Your task to perform on an android device: find snoozed emails in the gmail app Image 0: 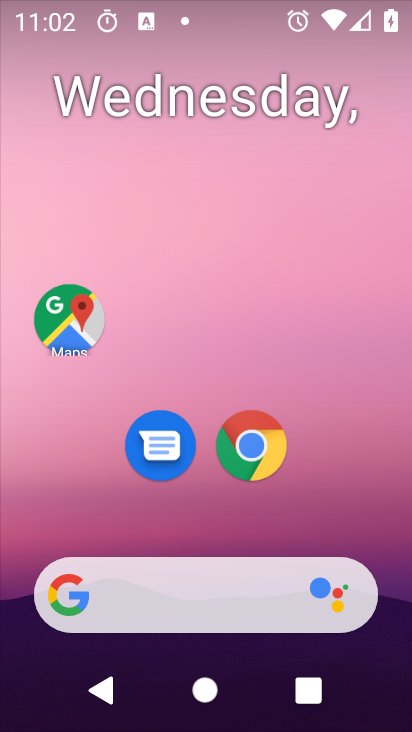
Step 0: drag from (344, 489) to (335, 5)
Your task to perform on an android device: find snoozed emails in the gmail app Image 1: 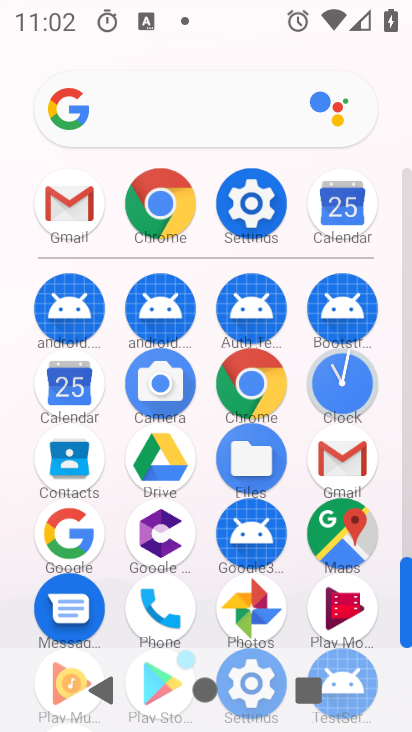
Step 1: click (344, 470)
Your task to perform on an android device: find snoozed emails in the gmail app Image 2: 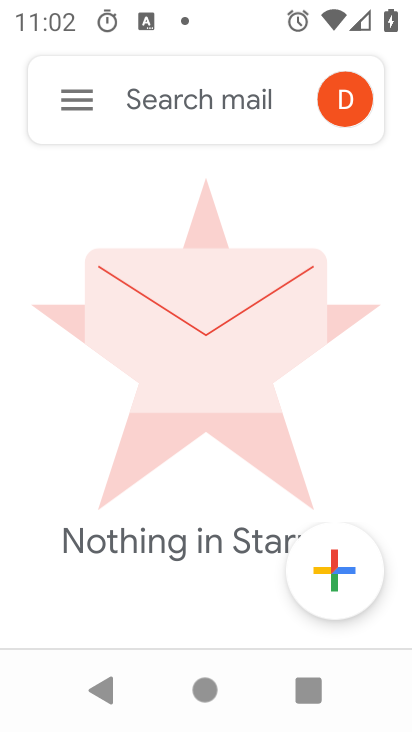
Step 2: click (60, 96)
Your task to perform on an android device: find snoozed emails in the gmail app Image 3: 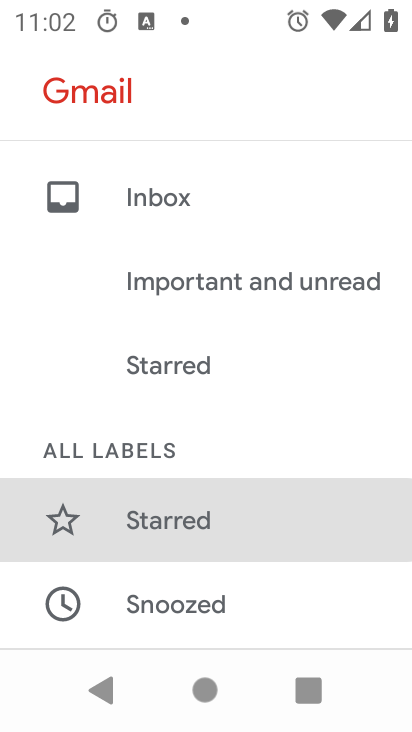
Step 3: drag from (240, 552) to (288, 228)
Your task to perform on an android device: find snoozed emails in the gmail app Image 4: 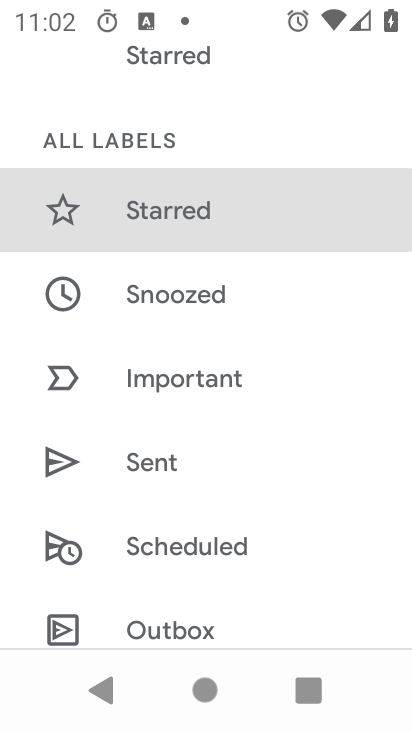
Step 4: click (158, 319)
Your task to perform on an android device: find snoozed emails in the gmail app Image 5: 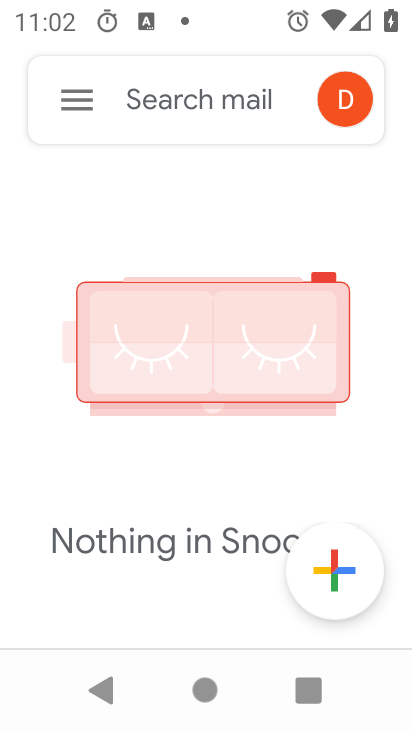
Step 5: task complete